Your task to perform on an android device: turn vacation reply on in the gmail app Image 0: 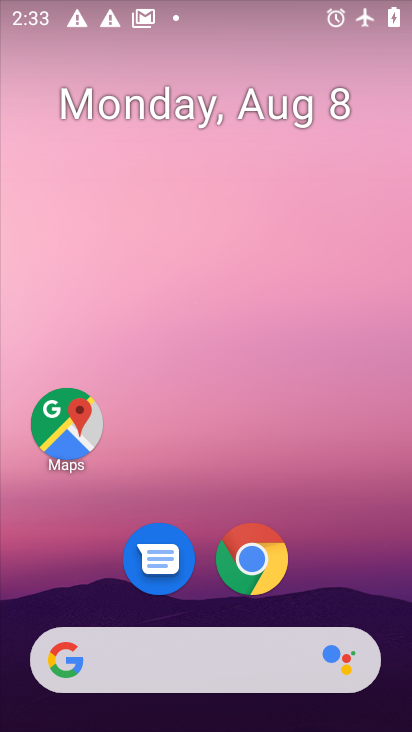
Step 0: drag from (171, 661) to (350, 133)
Your task to perform on an android device: turn vacation reply on in the gmail app Image 1: 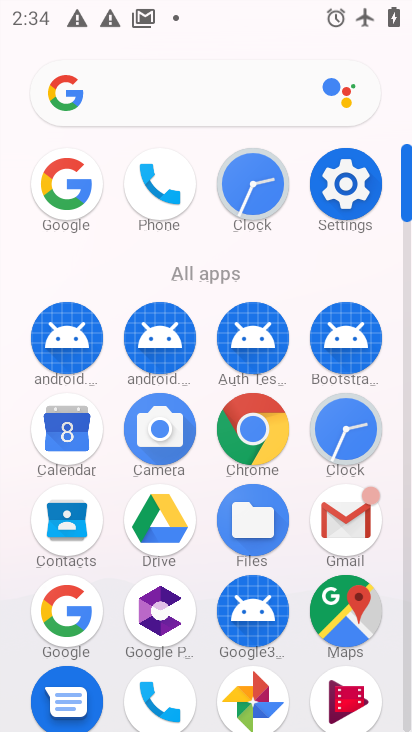
Step 1: click (346, 517)
Your task to perform on an android device: turn vacation reply on in the gmail app Image 2: 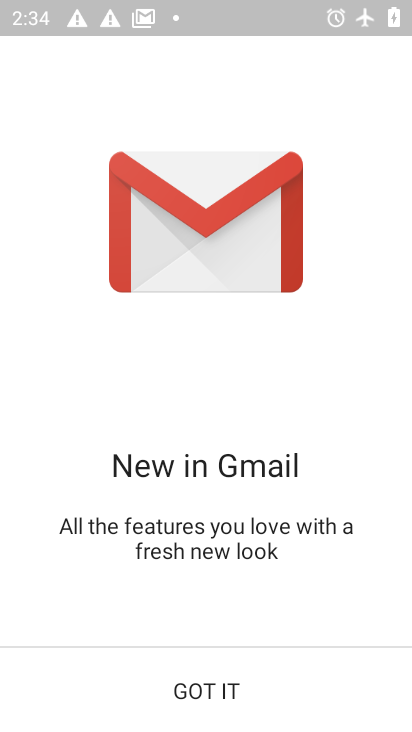
Step 2: click (226, 688)
Your task to perform on an android device: turn vacation reply on in the gmail app Image 3: 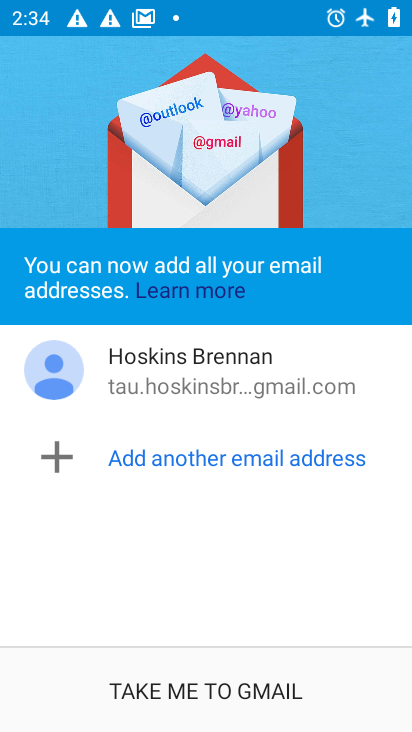
Step 3: click (226, 688)
Your task to perform on an android device: turn vacation reply on in the gmail app Image 4: 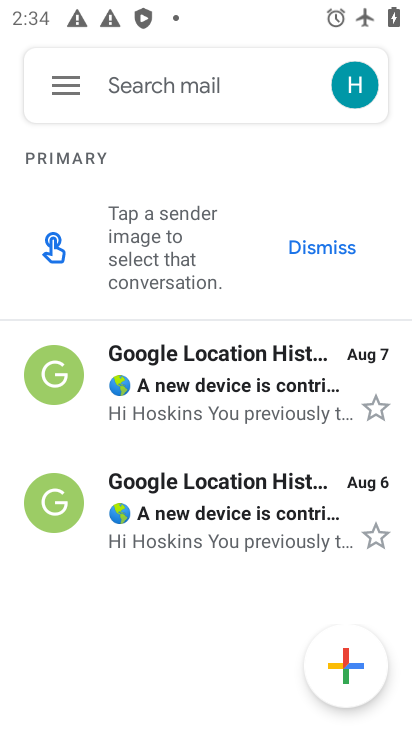
Step 4: click (65, 92)
Your task to perform on an android device: turn vacation reply on in the gmail app Image 5: 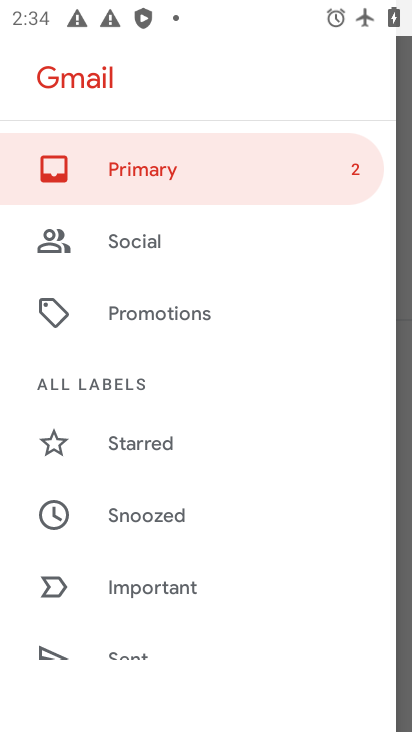
Step 5: drag from (126, 398) to (163, 301)
Your task to perform on an android device: turn vacation reply on in the gmail app Image 6: 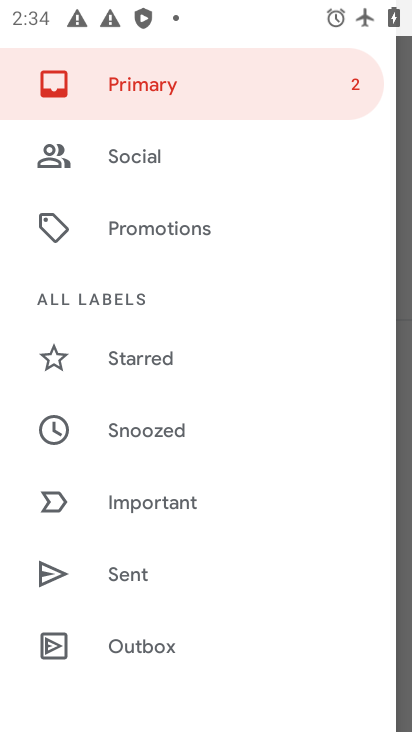
Step 6: drag from (154, 410) to (183, 367)
Your task to perform on an android device: turn vacation reply on in the gmail app Image 7: 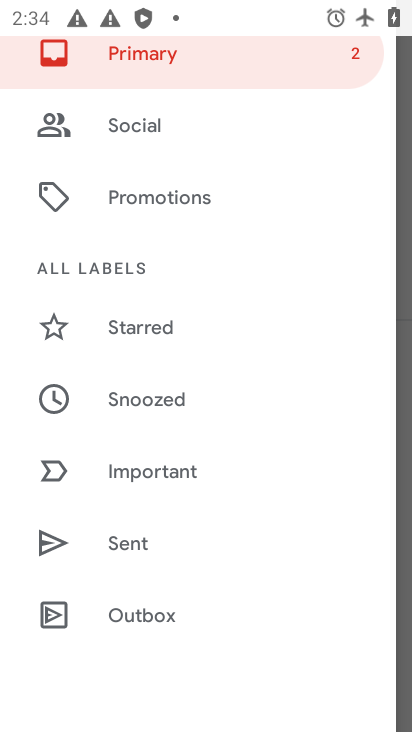
Step 7: drag from (134, 497) to (157, 402)
Your task to perform on an android device: turn vacation reply on in the gmail app Image 8: 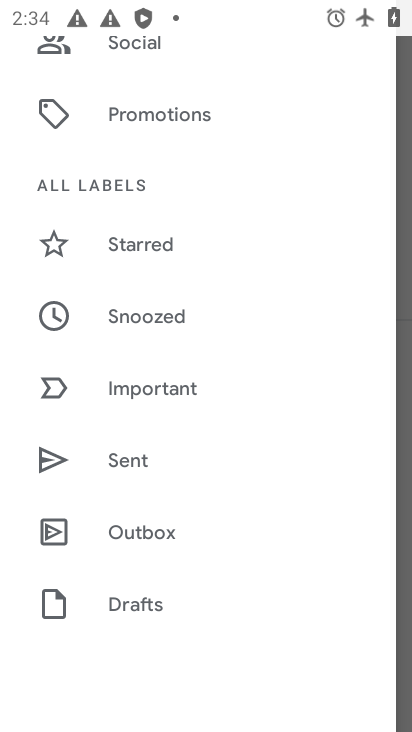
Step 8: drag from (120, 486) to (158, 385)
Your task to perform on an android device: turn vacation reply on in the gmail app Image 9: 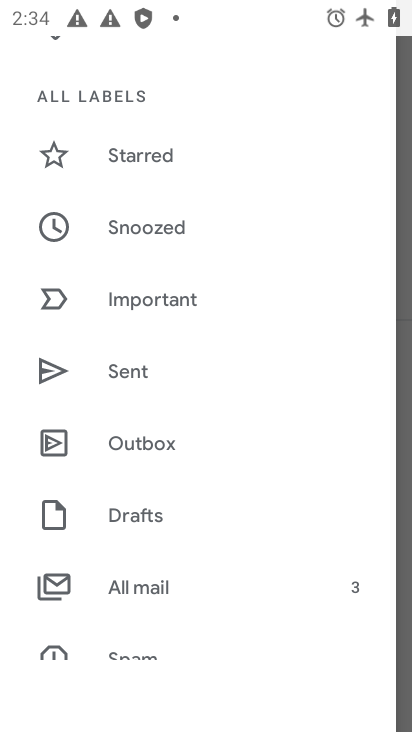
Step 9: drag from (123, 470) to (165, 383)
Your task to perform on an android device: turn vacation reply on in the gmail app Image 10: 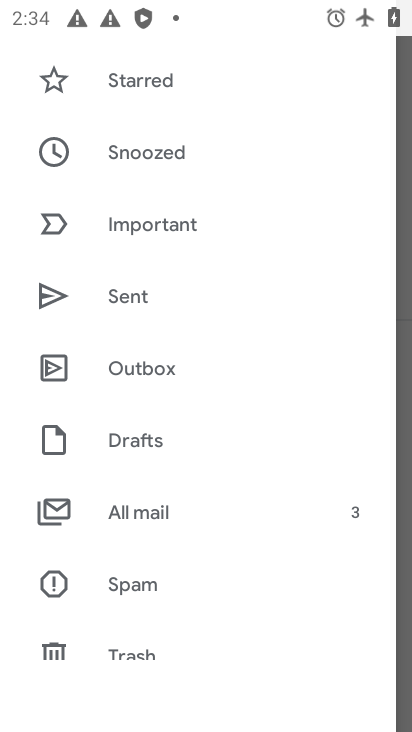
Step 10: drag from (132, 458) to (185, 363)
Your task to perform on an android device: turn vacation reply on in the gmail app Image 11: 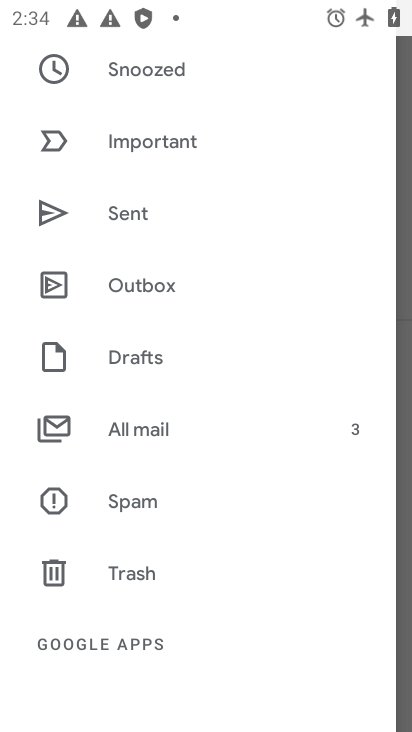
Step 11: drag from (131, 451) to (188, 356)
Your task to perform on an android device: turn vacation reply on in the gmail app Image 12: 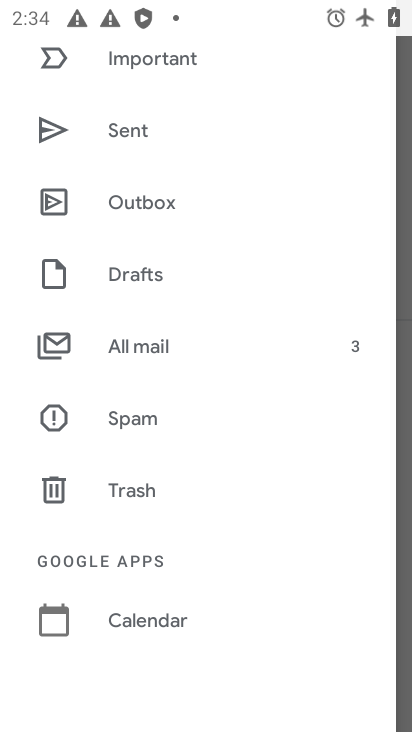
Step 12: drag from (128, 458) to (198, 353)
Your task to perform on an android device: turn vacation reply on in the gmail app Image 13: 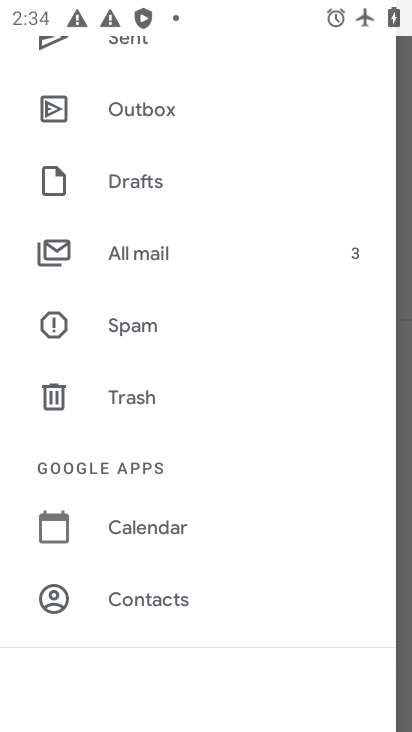
Step 13: drag from (141, 497) to (196, 328)
Your task to perform on an android device: turn vacation reply on in the gmail app Image 14: 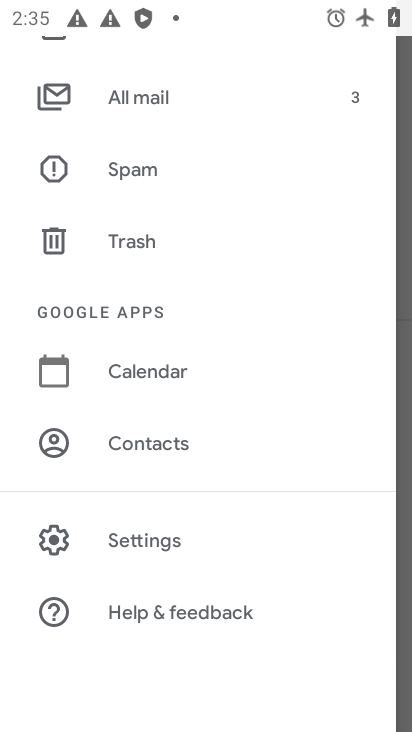
Step 14: click (141, 546)
Your task to perform on an android device: turn vacation reply on in the gmail app Image 15: 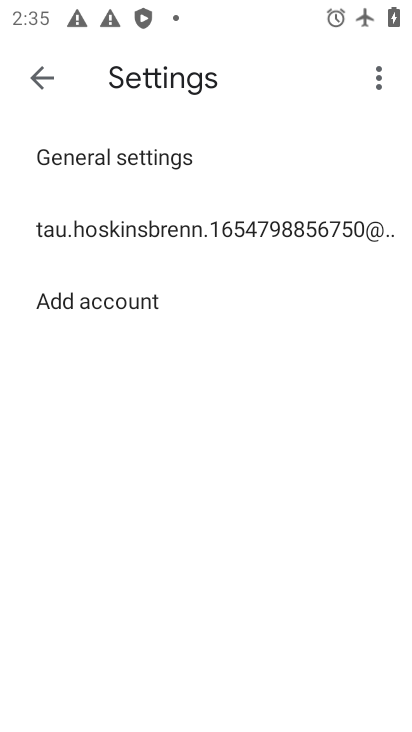
Step 15: click (184, 234)
Your task to perform on an android device: turn vacation reply on in the gmail app Image 16: 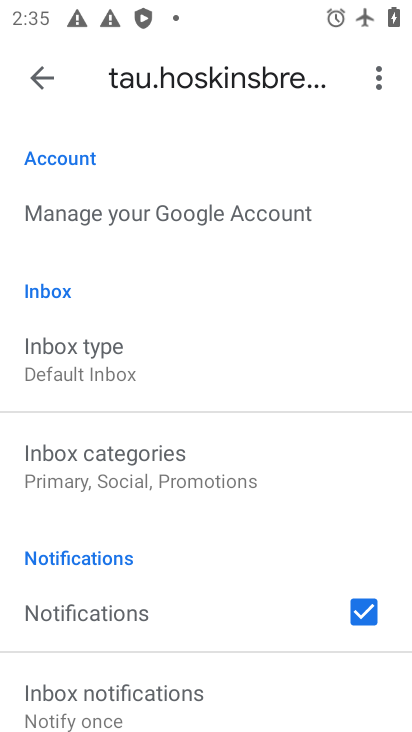
Step 16: drag from (129, 517) to (202, 411)
Your task to perform on an android device: turn vacation reply on in the gmail app Image 17: 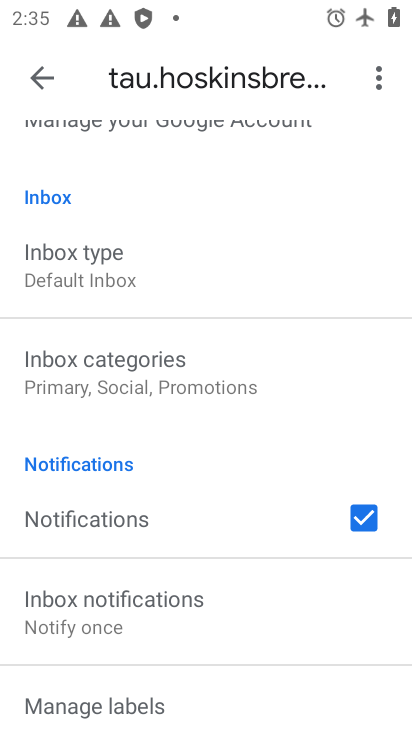
Step 17: drag from (176, 549) to (257, 436)
Your task to perform on an android device: turn vacation reply on in the gmail app Image 18: 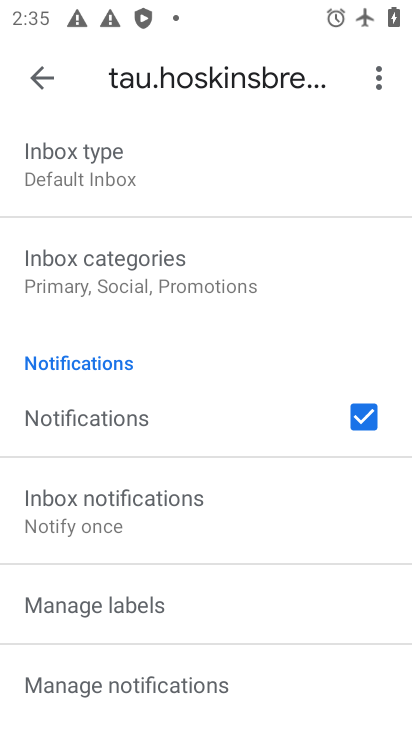
Step 18: drag from (170, 570) to (253, 464)
Your task to perform on an android device: turn vacation reply on in the gmail app Image 19: 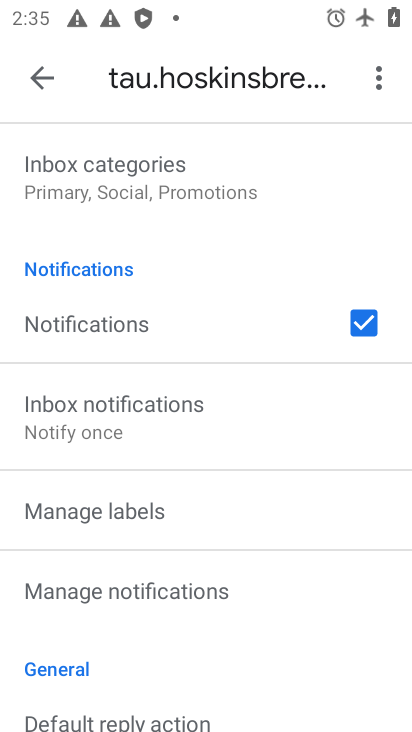
Step 19: drag from (163, 638) to (258, 517)
Your task to perform on an android device: turn vacation reply on in the gmail app Image 20: 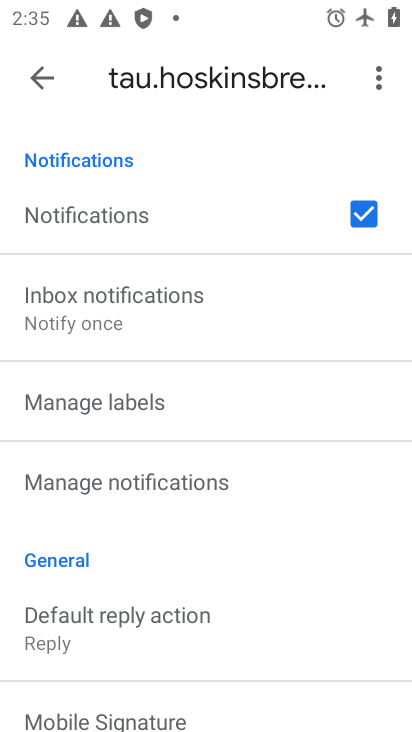
Step 20: drag from (190, 645) to (271, 533)
Your task to perform on an android device: turn vacation reply on in the gmail app Image 21: 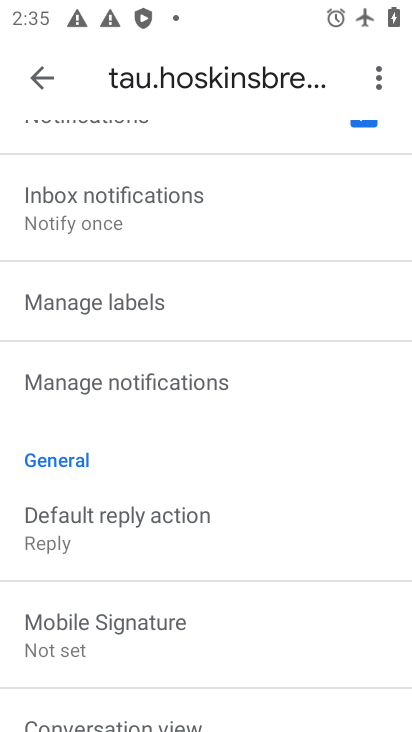
Step 21: drag from (165, 641) to (221, 532)
Your task to perform on an android device: turn vacation reply on in the gmail app Image 22: 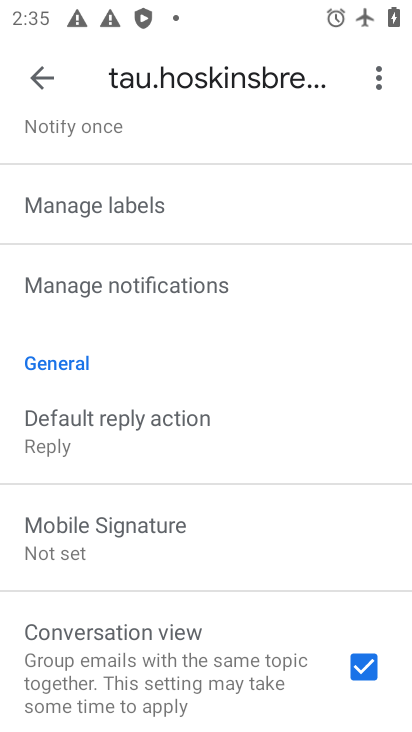
Step 22: drag from (159, 689) to (259, 548)
Your task to perform on an android device: turn vacation reply on in the gmail app Image 23: 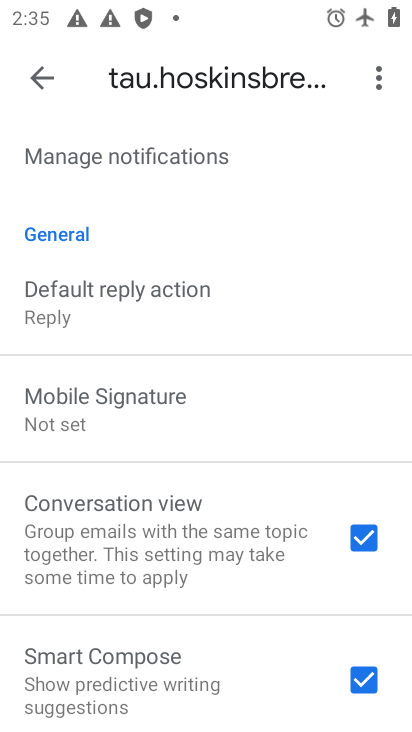
Step 23: drag from (203, 679) to (284, 539)
Your task to perform on an android device: turn vacation reply on in the gmail app Image 24: 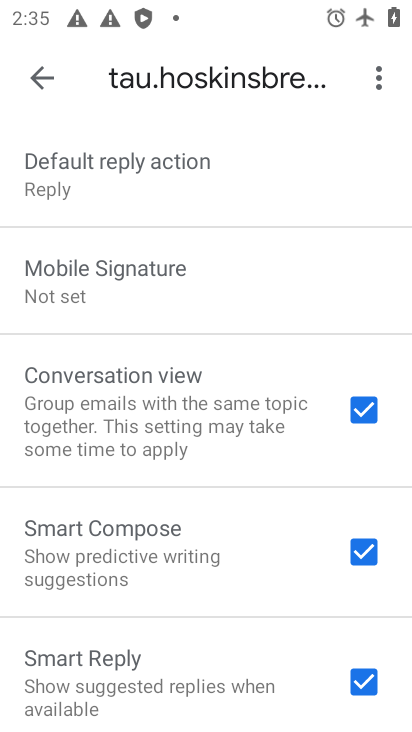
Step 24: drag from (168, 687) to (274, 541)
Your task to perform on an android device: turn vacation reply on in the gmail app Image 25: 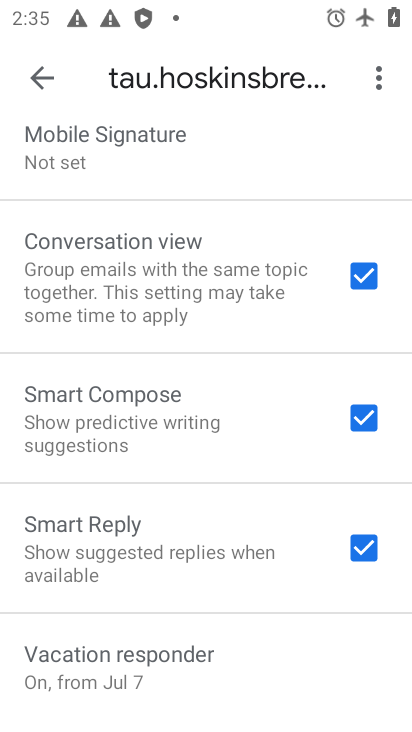
Step 25: click (185, 657)
Your task to perform on an android device: turn vacation reply on in the gmail app Image 26: 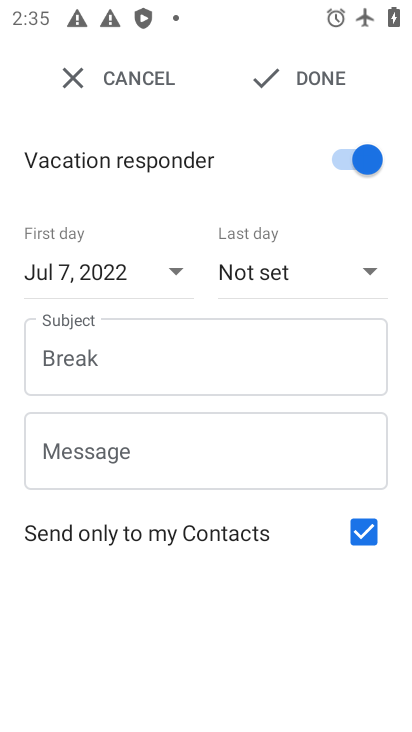
Step 26: task complete